Your task to perform on an android device: Open battery settings Image 0: 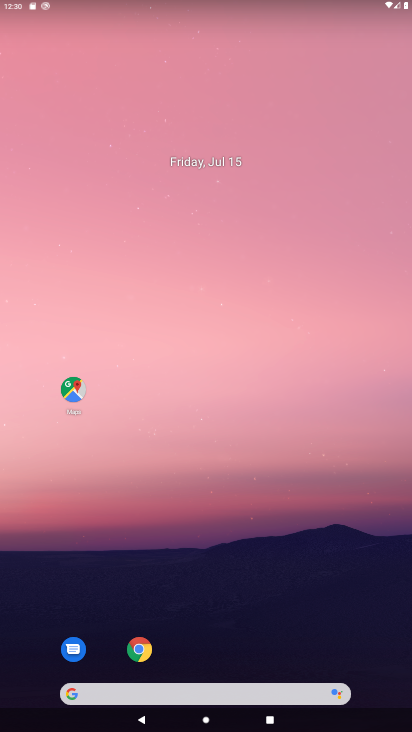
Step 0: click (188, 232)
Your task to perform on an android device: Open battery settings Image 1: 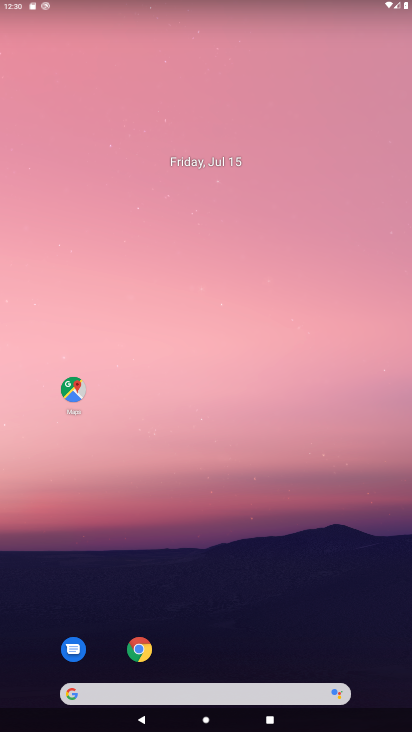
Step 1: click (98, 259)
Your task to perform on an android device: Open battery settings Image 2: 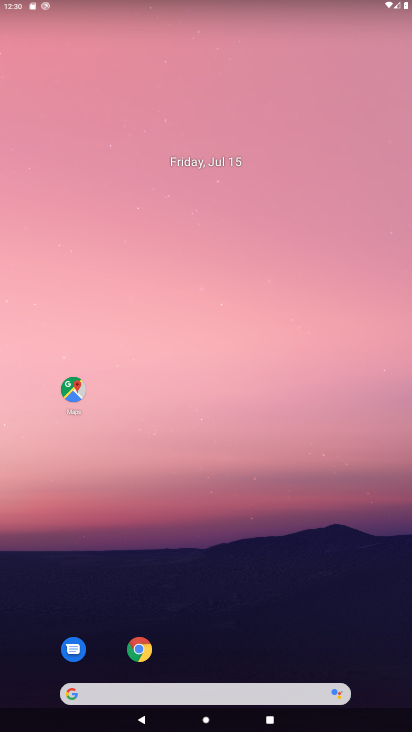
Step 2: drag from (278, 554) to (196, 214)
Your task to perform on an android device: Open battery settings Image 3: 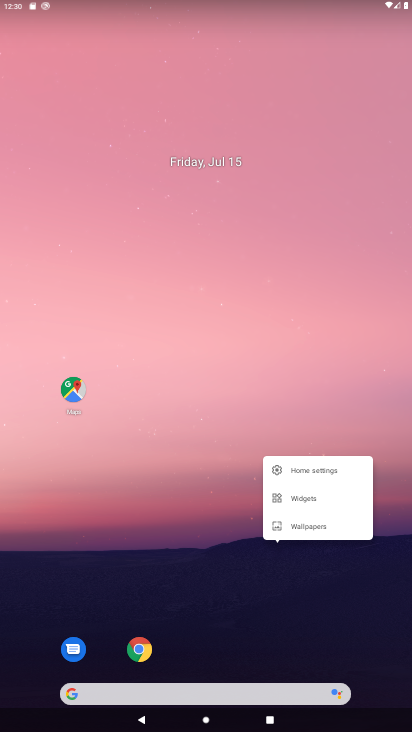
Step 3: drag from (239, 620) to (178, 203)
Your task to perform on an android device: Open battery settings Image 4: 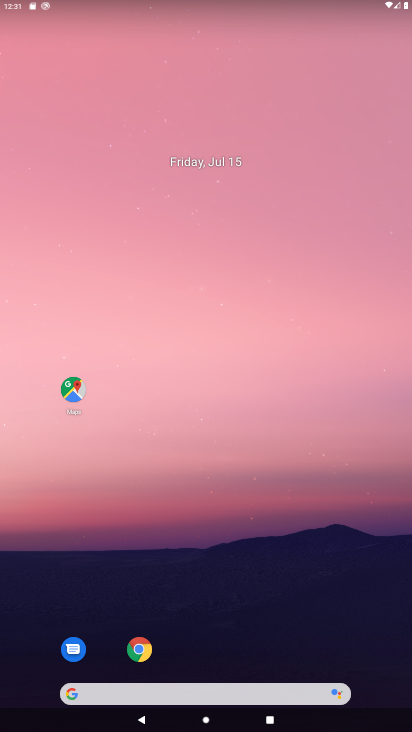
Step 4: drag from (285, 661) to (205, 3)
Your task to perform on an android device: Open battery settings Image 5: 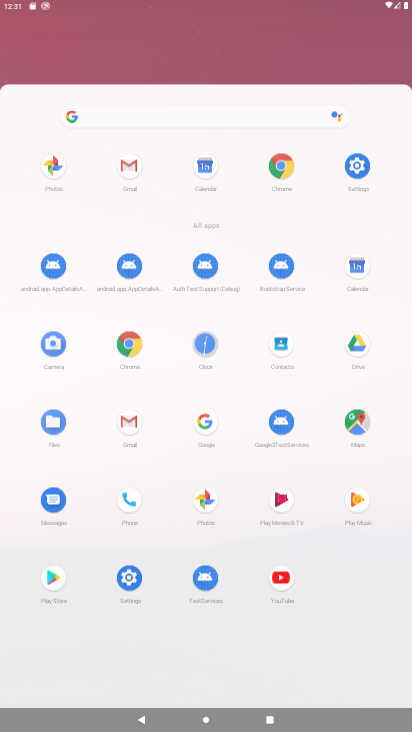
Step 5: drag from (225, 401) to (142, 42)
Your task to perform on an android device: Open battery settings Image 6: 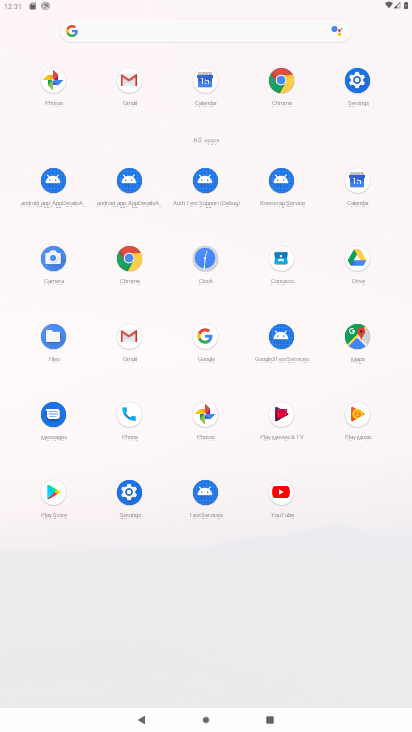
Step 6: drag from (180, 393) to (180, 161)
Your task to perform on an android device: Open battery settings Image 7: 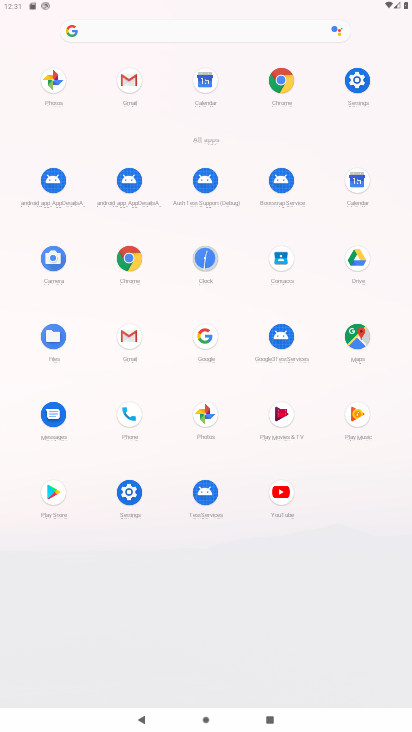
Step 7: click (121, 487)
Your task to perform on an android device: Open battery settings Image 8: 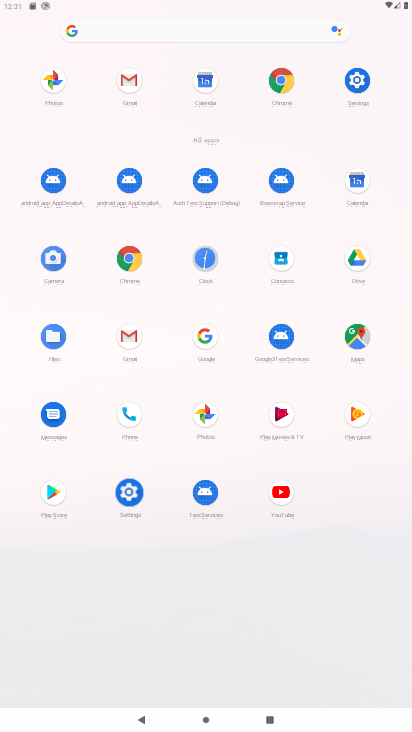
Step 8: click (126, 488)
Your task to perform on an android device: Open battery settings Image 9: 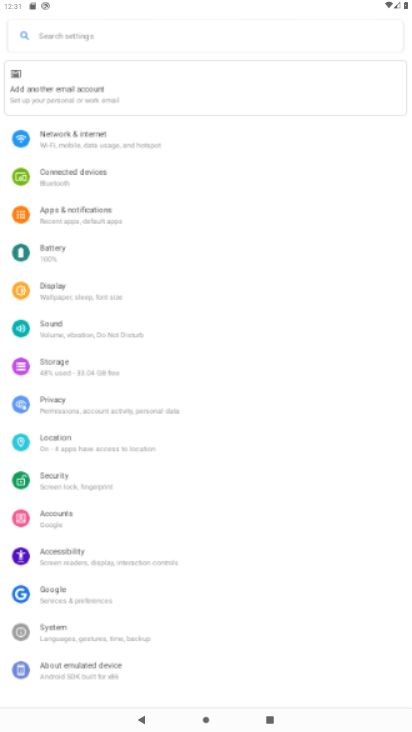
Step 9: click (126, 488)
Your task to perform on an android device: Open battery settings Image 10: 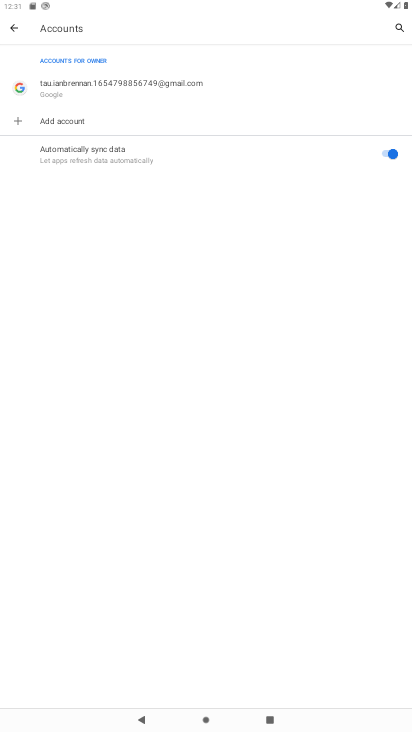
Step 10: click (16, 25)
Your task to perform on an android device: Open battery settings Image 11: 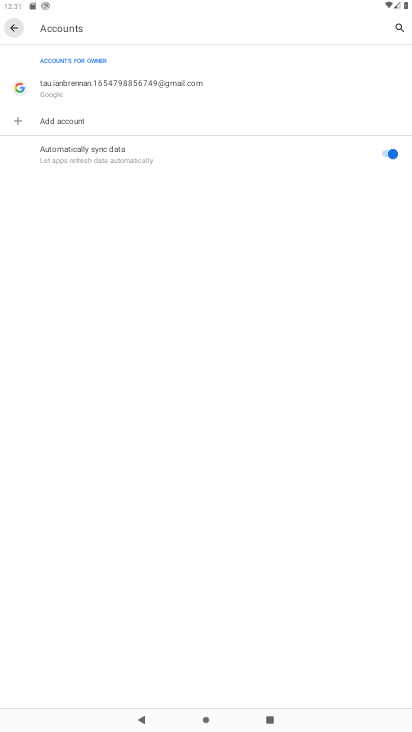
Step 11: click (16, 25)
Your task to perform on an android device: Open battery settings Image 12: 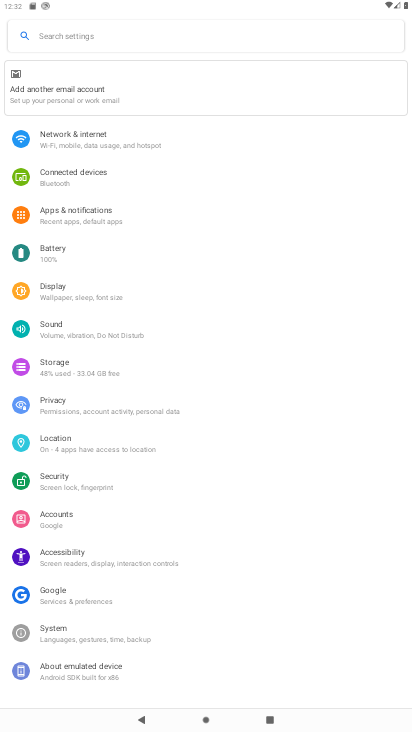
Step 12: click (44, 253)
Your task to perform on an android device: Open battery settings Image 13: 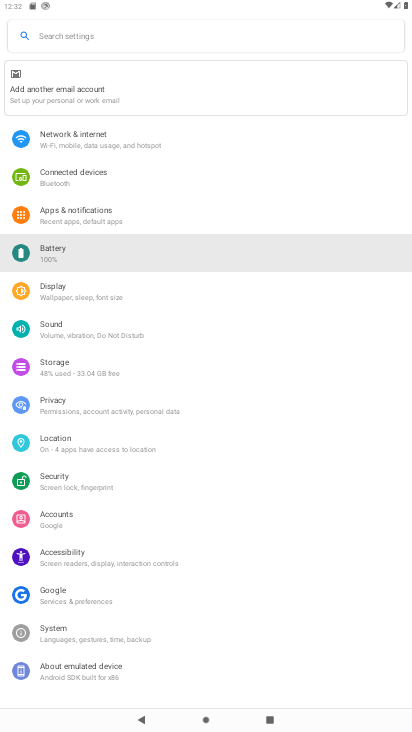
Step 13: click (67, 253)
Your task to perform on an android device: Open battery settings Image 14: 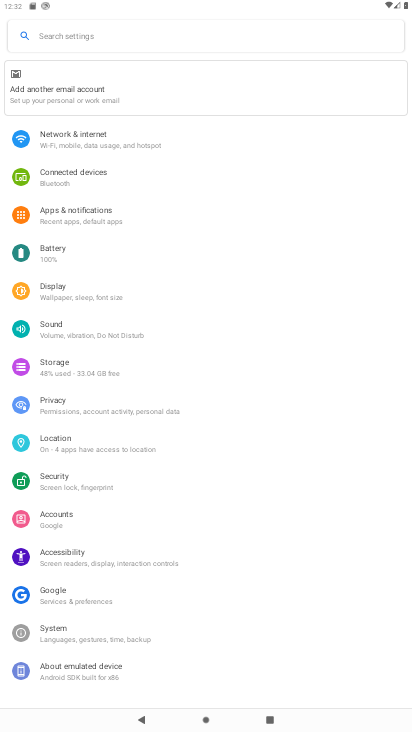
Step 14: click (67, 254)
Your task to perform on an android device: Open battery settings Image 15: 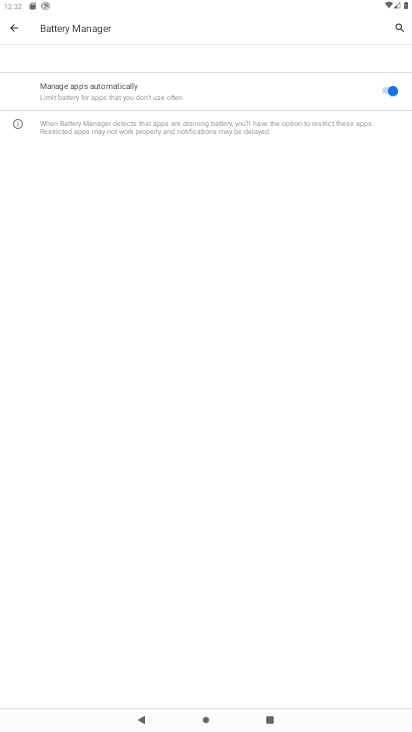
Step 15: click (2, 28)
Your task to perform on an android device: Open battery settings Image 16: 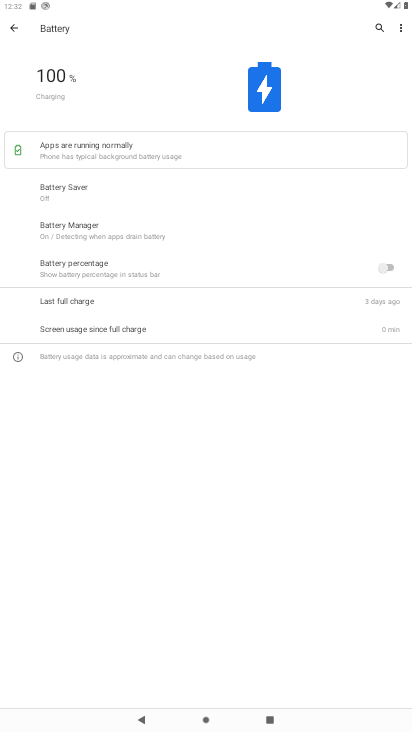
Step 16: task complete